Your task to perform on an android device: turn notification dots on Image 0: 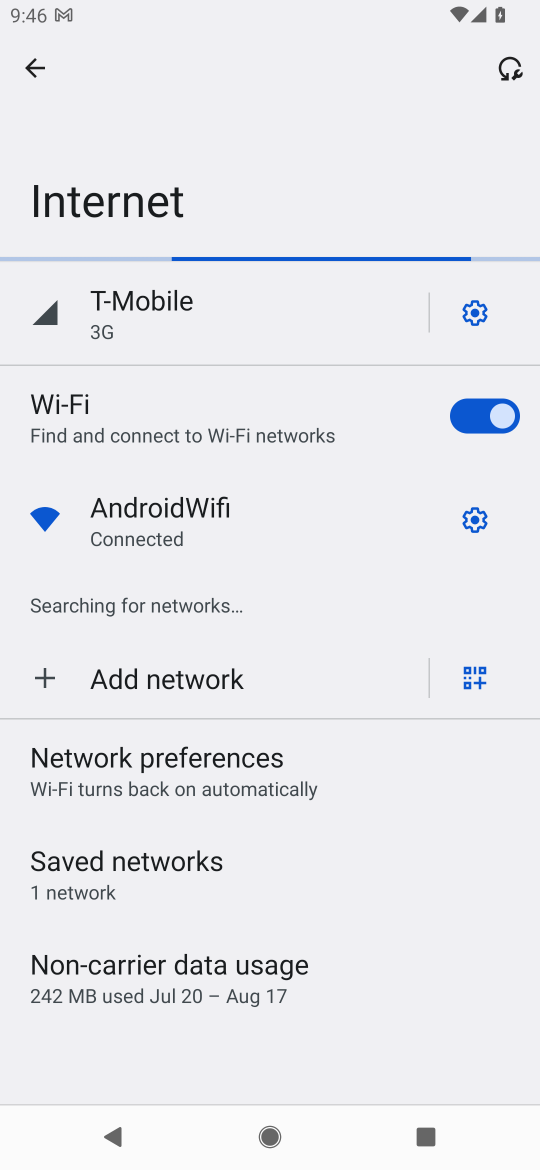
Step 0: press home button
Your task to perform on an android device: turn notification dots on Image 1: 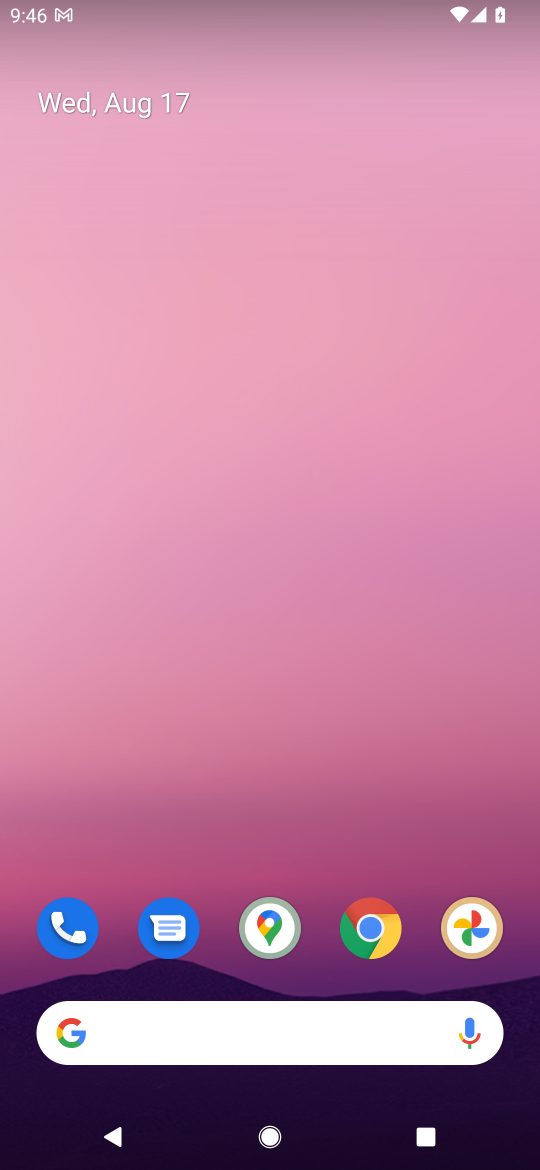
Step 1: drag from (332, 883) to (367, 261)
Your task to perform on an android device: turn notification dots on Image 2: 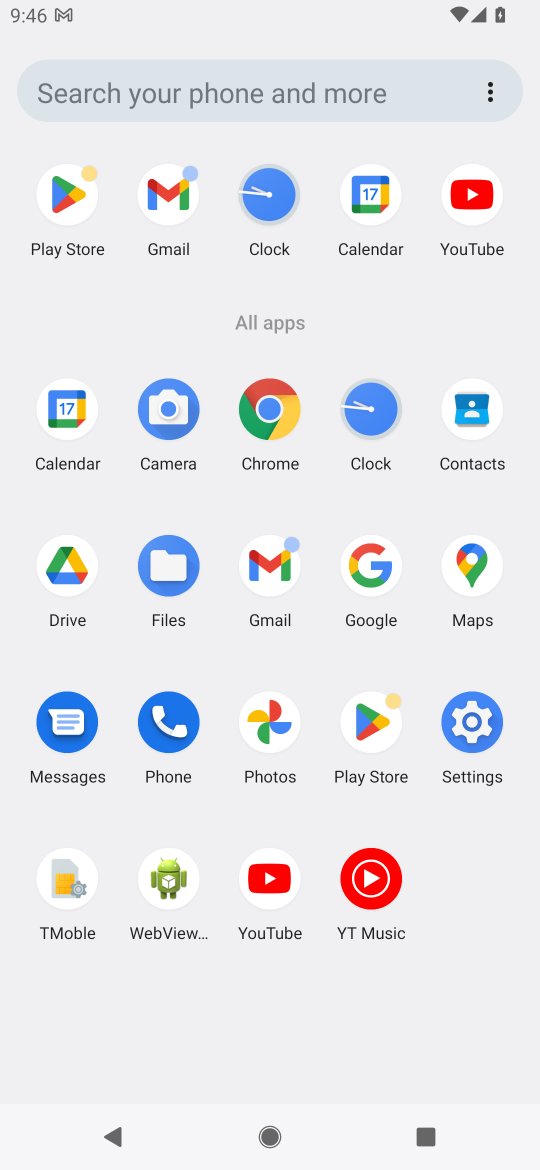
Step 2: click (472, 729)
Your task to perform on an android device: turn notification dots on Image 3: 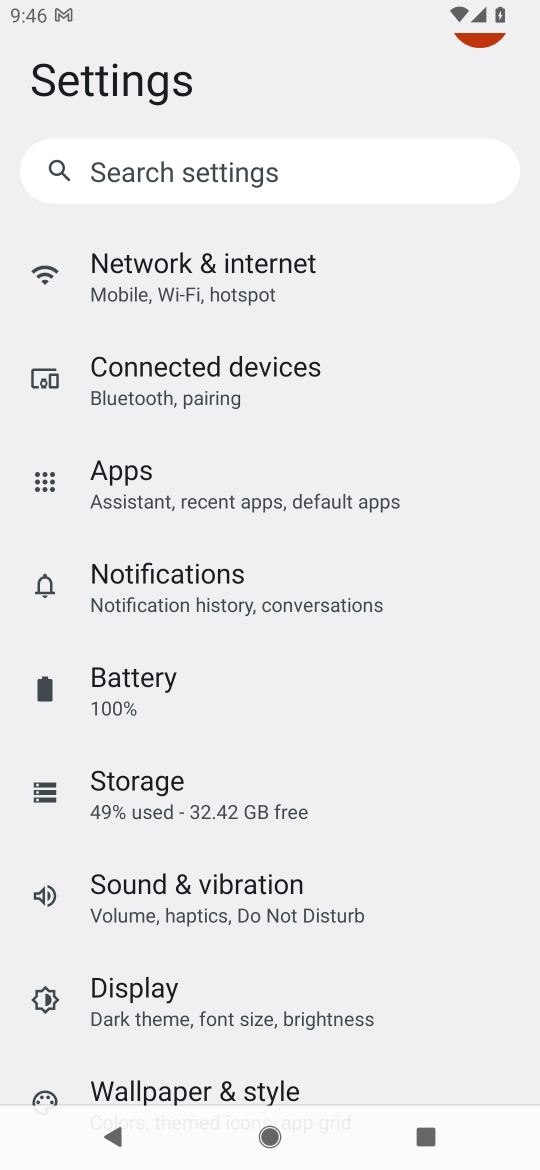
Step 3: click (324, 617)
Your task to perform on an android device: turn notification dots on Image 4: 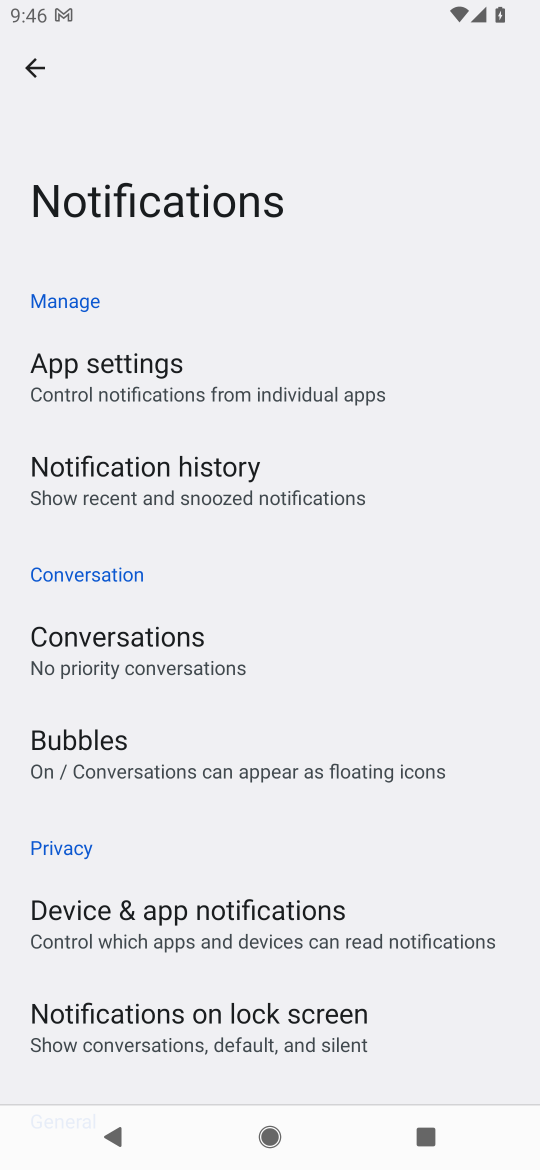
Step 4: task complete